Your task to perform on an android device: Turn on the flashlight Image 0: 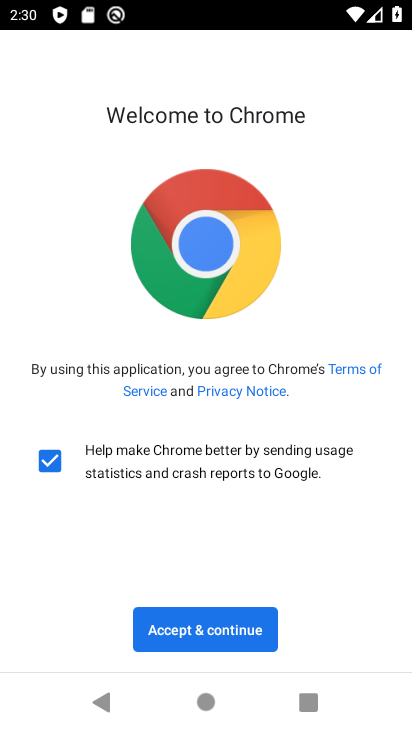
Step 0: press home button
Your task to perform on an android device: Turn on the flashlight Image 1: 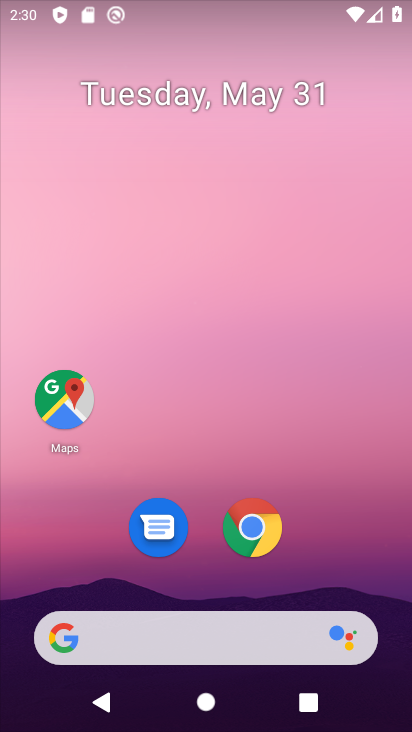
Step 1: task complete